Your task to perform on an android device: change the clock style Image 0: 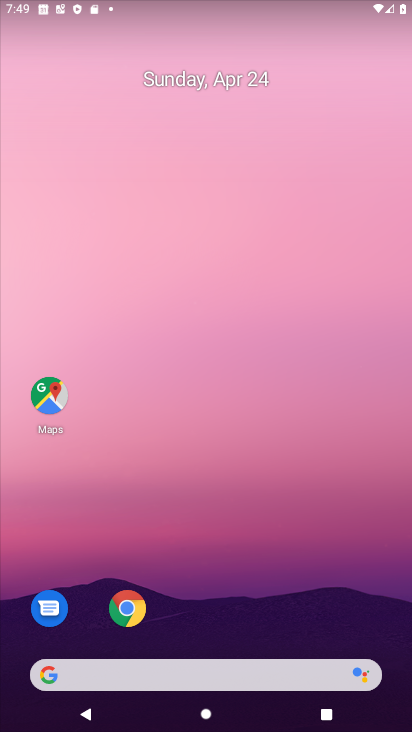
Step 0: drag from (280, 608) to (336, 116)
Your task to perform on an android device: change the clock style Image 1: 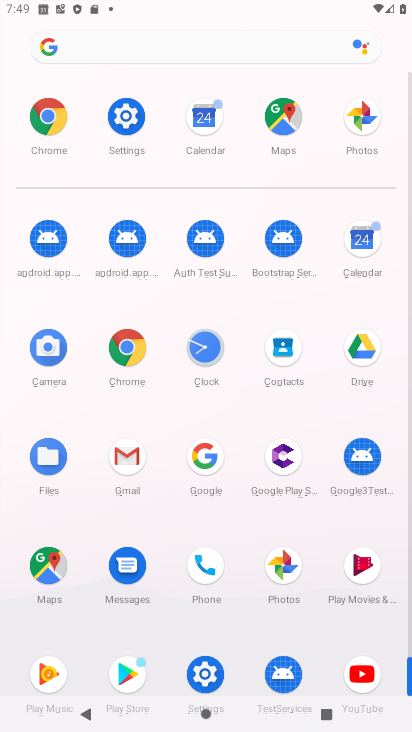
Step 1: click (203, 356)
Your task to perform on an android device: change the clock style Image 2: 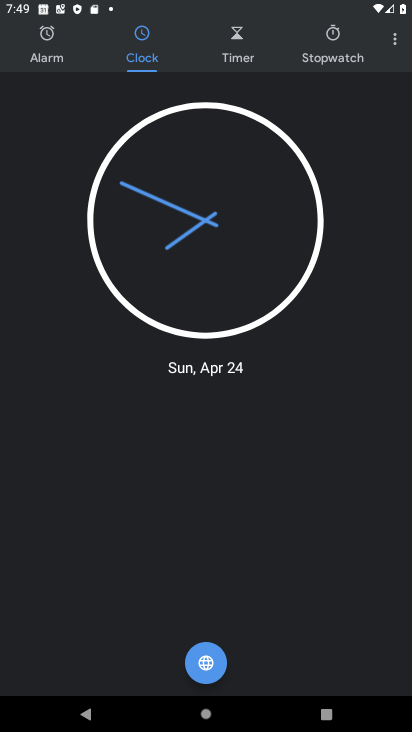
Step 2: click (394, 37)
Your task to perform on an android device: change the clock style Image 3: 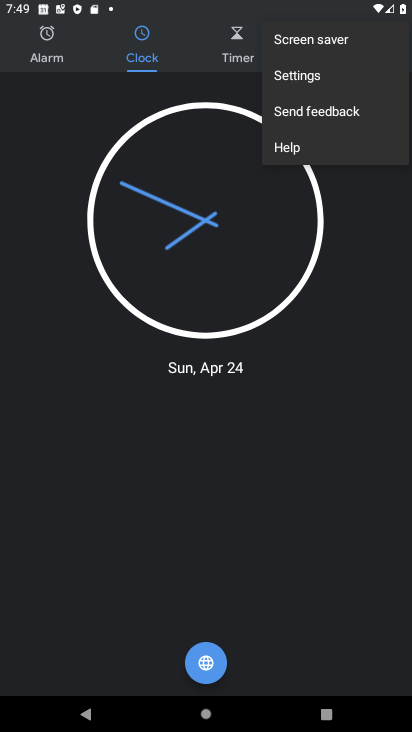
Step 3: click (289, 77)
Your task to perform on an android device: change the clock style Image 4: 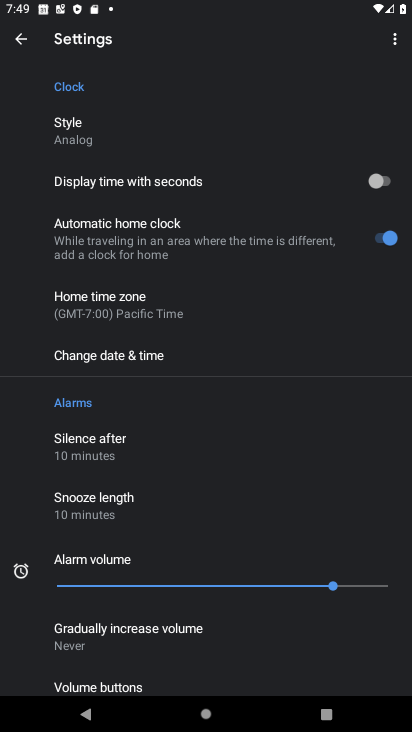
Step 4: click (67, 120)
Your task to perform on an android device: change the clock style Image 5: 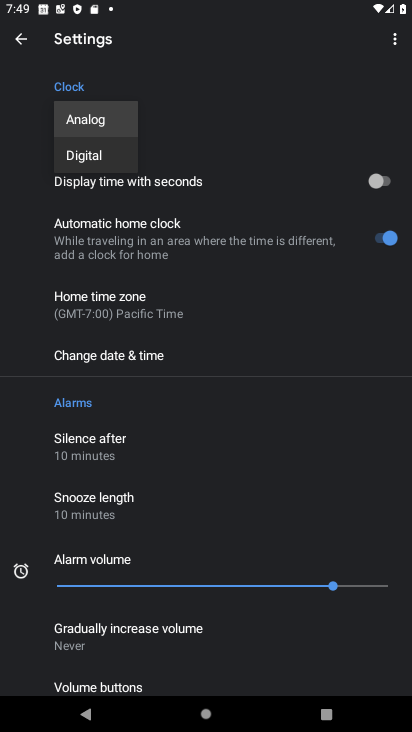
Step 5: click (109, 161)
Your task to perform on an android device: change the clock style Image 6: 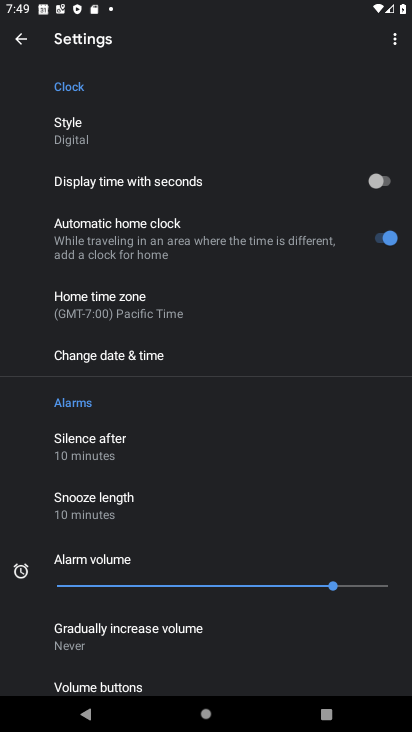
Step 6: task complete